Your task to perform on an android device: Do I have any events tomorrow? Image 0: 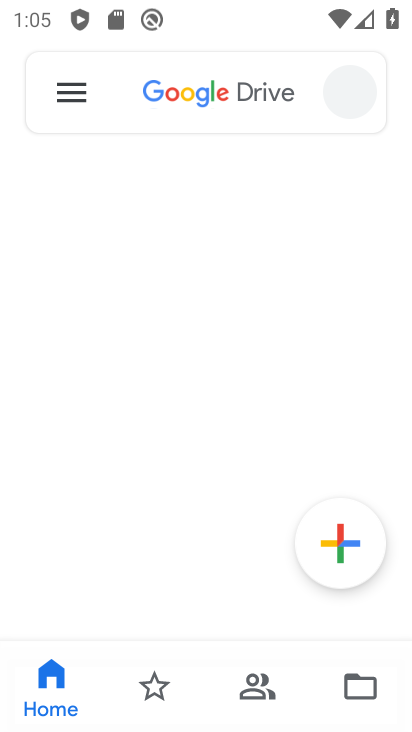
Step 0: drag from (389, 593) to (387, 518)
Your task to perform on an android device: Do I have any events tomorrow? Image 1: 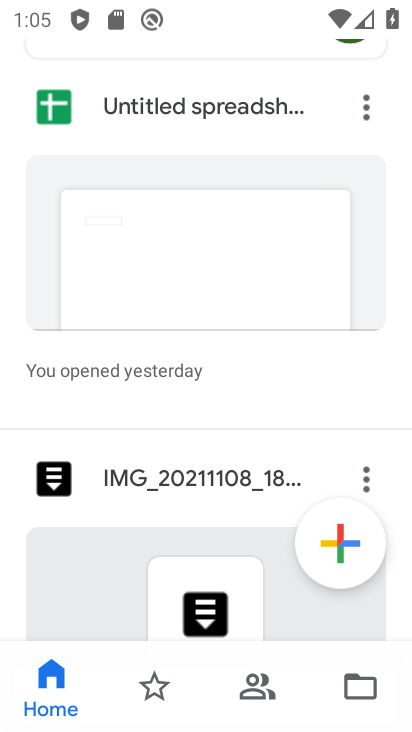
Step 1: press home button
Your task to perform on an android device: Do I have any events tomorrow? Image 2: 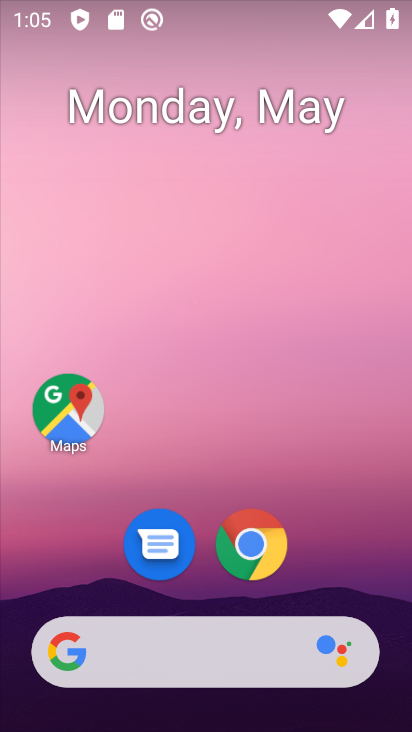
Step 2: drag from (388, 590) to (388, 282)
Your task to perform on an android device: Do I have any events tomorrow? Image 3: 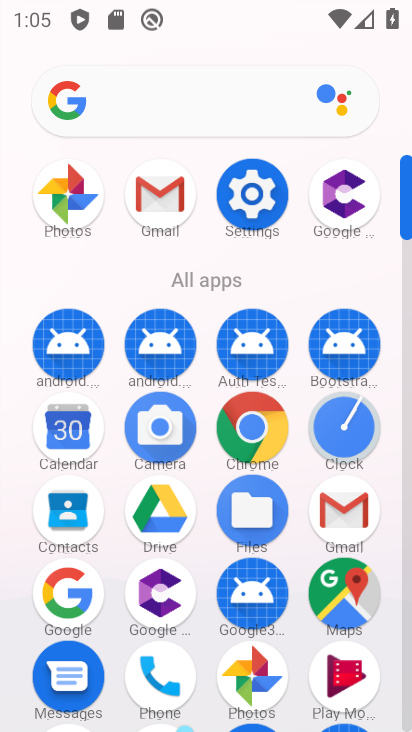
Step 3: click (71, 448)
Your task to perform on an android device: Do I have any events tomorrow? Image 4: 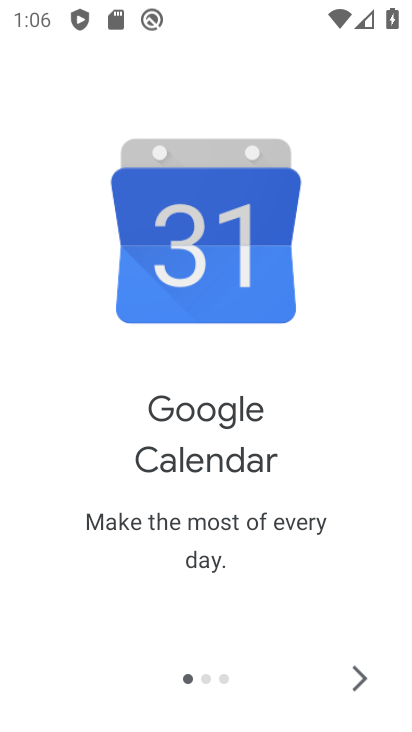
Step 4: click (343, 679)
Your task to perform on an android device: Do I have any events tomorrow? Image 5: 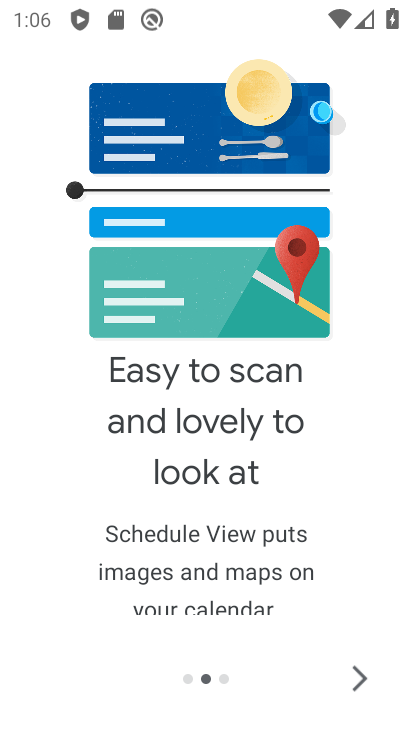
Step 5: click (343, 679)
Your task to perform on an android device: Do I have any events tomorrow? Image 6: 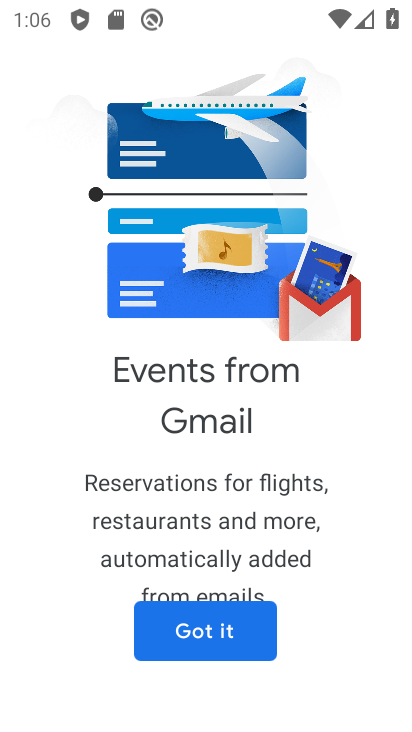
Step 6: click (229, 635)
Your task to perform on an android device: Do I have any events tomorrow? Image 7: 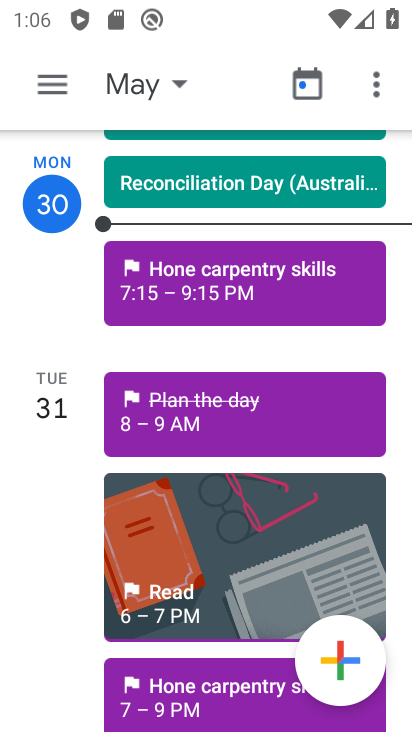
Step 7: click (245, 415)
Your task to perform on an android device: Do I have any events tomorrow? Image 8: 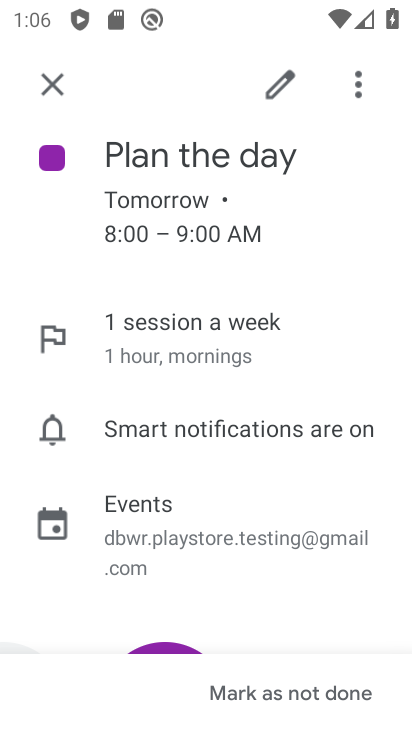
Step 8: task complete